Your task to perform on an android device: Open calendar and show me the fourth week of next month Image 0: 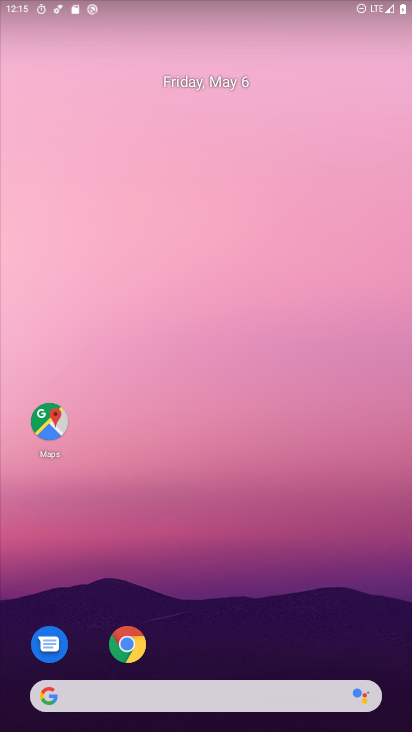
Step 0: drag from (370, 624) to (374, 105)
Your task to perform on an android device: Open calendar and show me the fourth week of next month Image 1: 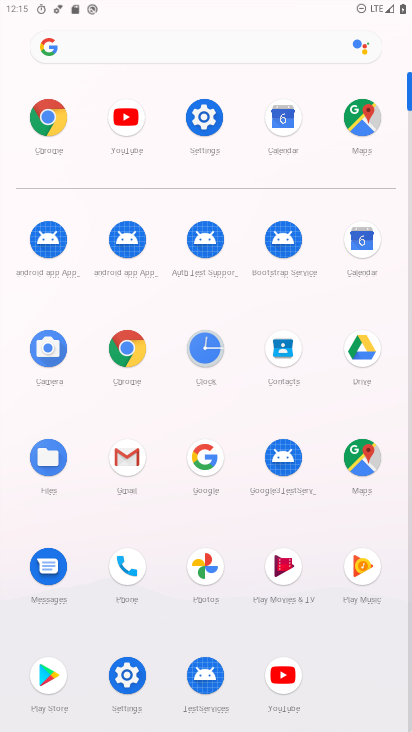
Step 1: click (356, 249)
Your task to perform on an android device: Open calendar and show me the fourth week of next month Image 2: 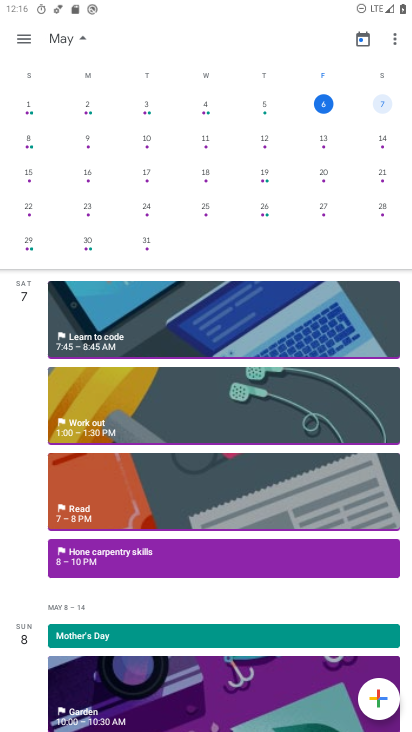
Step 2: drag from (228, 88) to (0, 104)
Your task to perform on an android device: Open calendar and show me the fourth week of next month Image 3: 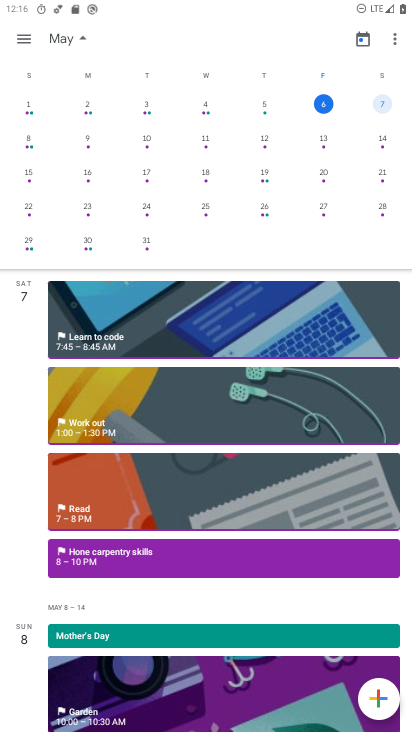
Step 3: drag from (351, 125) to (7, 106)
Your task to perform on an android device: Open calendar and show me the fourth week of next month Image 4: 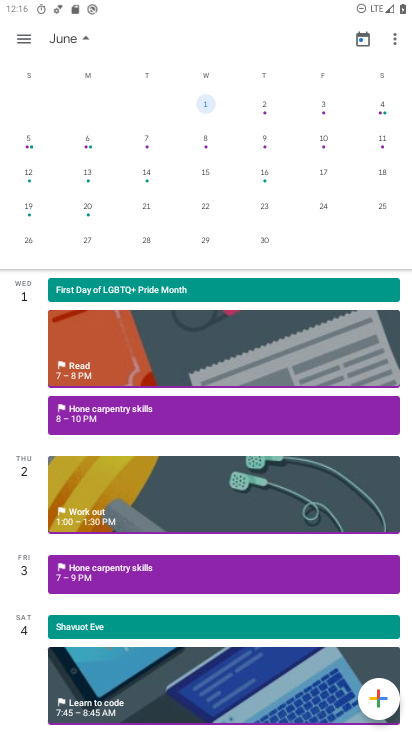
Step 4: click (30, 204)
Your task to perform on an android device: Open calendar and show me the fourth week of next month Image 5: 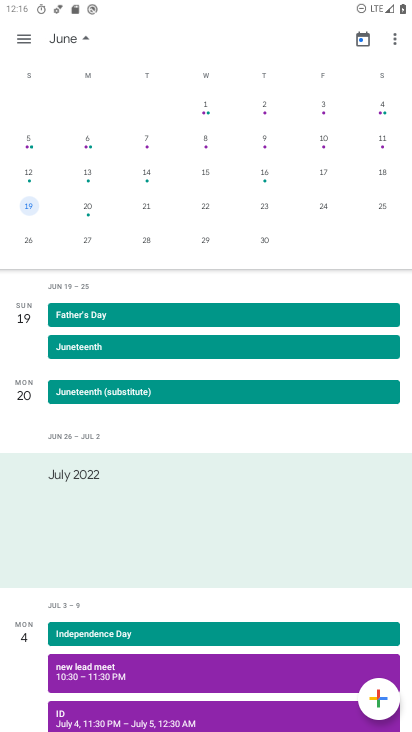
Step 5: task complete